Your task to perform on an android device: Open Google Chrome and click the shortcut for Amazon.com Image 0: 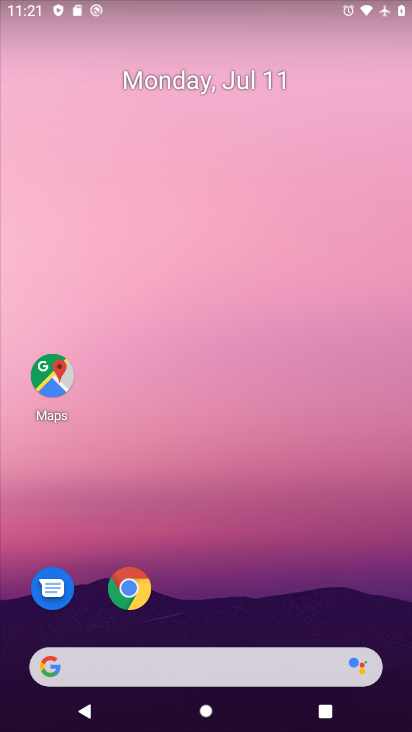
Step 0: click (133, 600)
Your task to perform on an android device: Open Google Chrome and click the shortcut for Amazon.com Image 1: 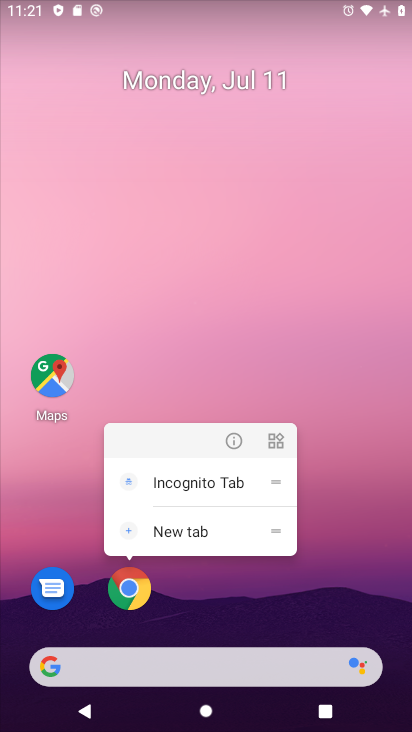
Step 1: click (137, 592)
Your task to perform on an android device: Open Google Chrome and click the shortcut for Amazon.com Image 2: 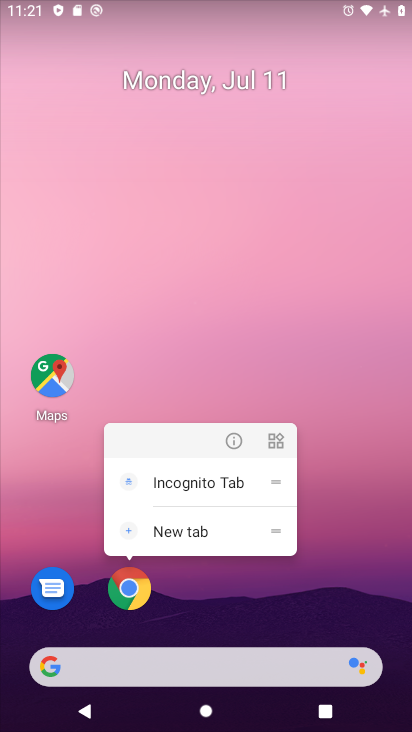
Step 2: click (138, 593)
Your task to perform on an android device: Open Google Chrome and click the shortcut for Amazon.com Image 3: 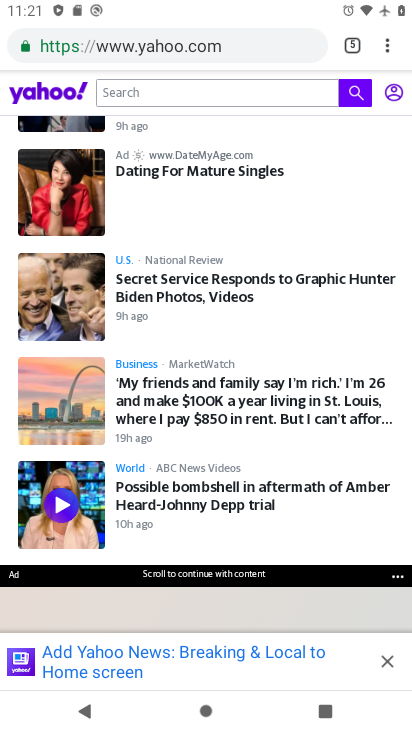
Step 3: drag from (384, 50) to (297, 90)
Your task to perform on an android device: Open Google Chrome and click the shortcut for Amazon.com Image 4: 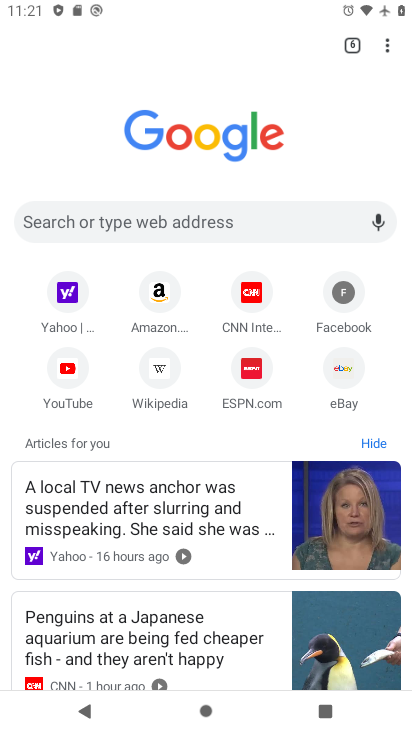
Step 4: click (163, 290)
Your task to perform on an android device: Open Google Chrome and click the shortcut for Amazon.com Image 5: 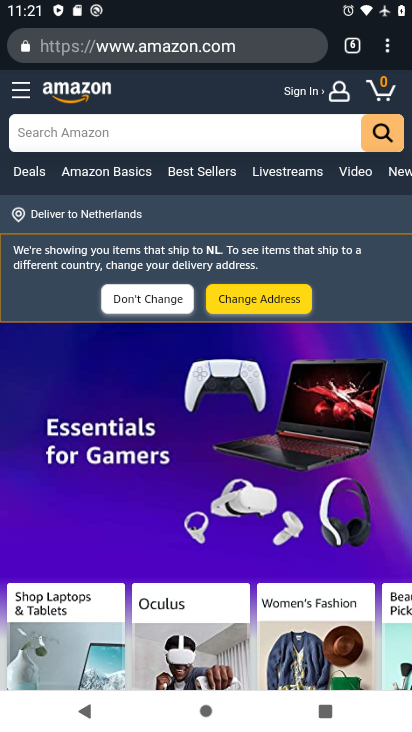
Step 5: task complete